Your task to perform on an android device: Show me popular videos on Youtube Image 0: 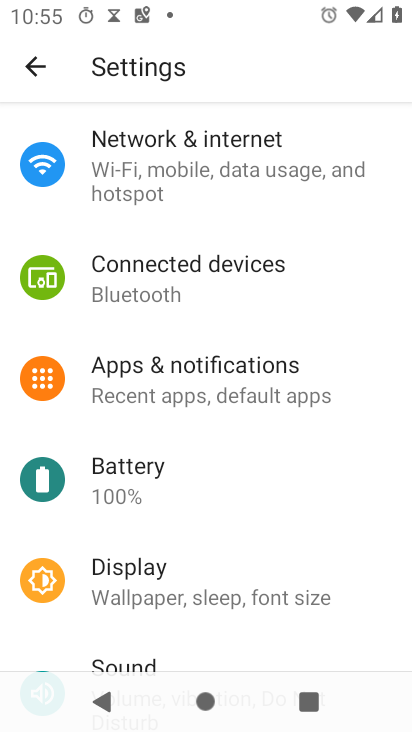
Step 0: press home button
Your task to perform on an android device: Show me popular videos on Youtube Image 1: 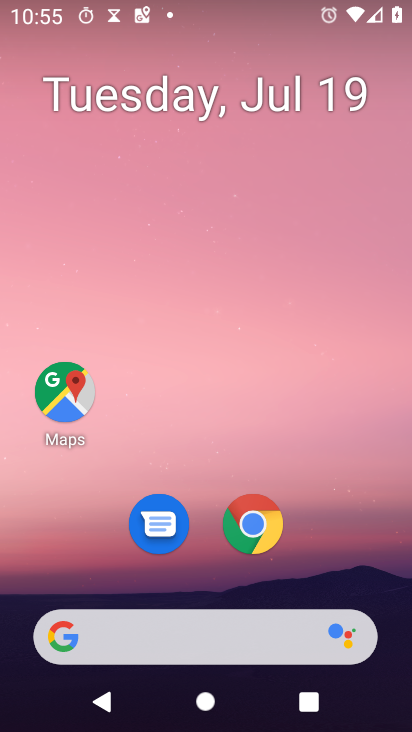
Step 1: drag from (242, 640) to (338, 168)
Your task to perform on an android device: Show me popular videos on Youtube Image 2: 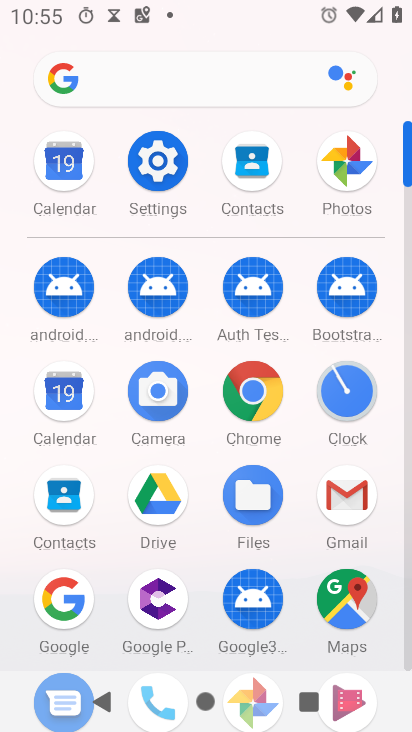
Step 2: drag from (228, 618) to (364, 155)
Your task to perform on an android device: Show me popular videos on Youtube Image 3: 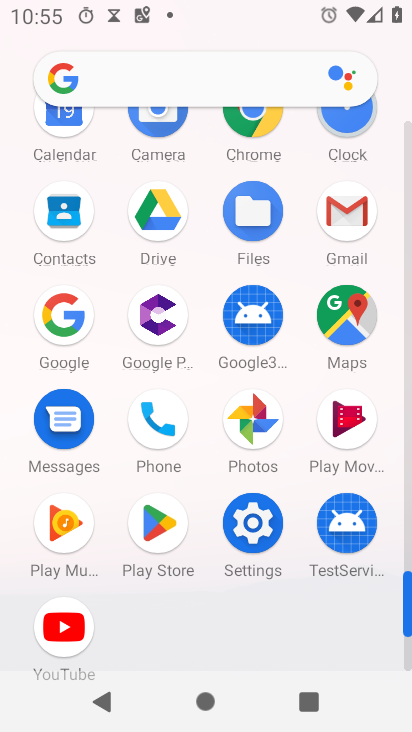
Step 3: click (63, 625)
Your task to perform on an android device: Show me popular videos on Youtube Image 4: 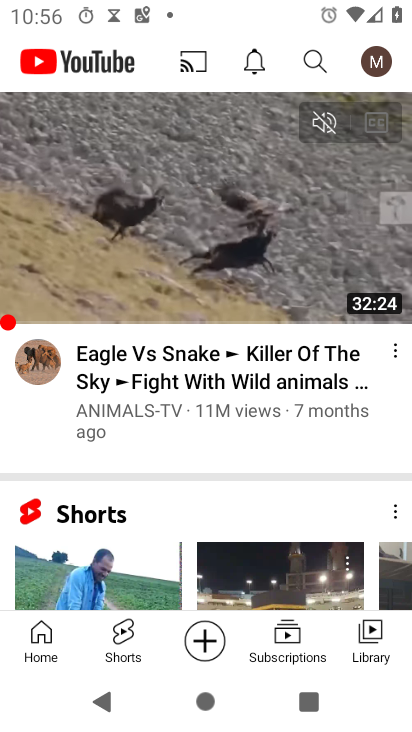
Step 4: task complete